Your task to perform on an android device: Go to notification settings Image 0: 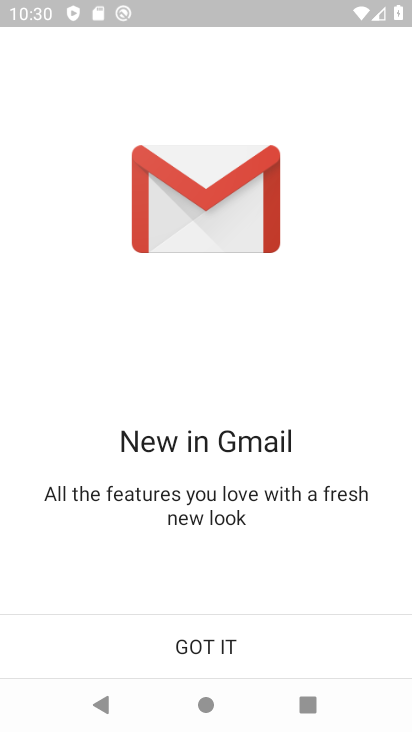
Step 0: press home button
Your task to perform on an android device: Go to notification settings Image 1: 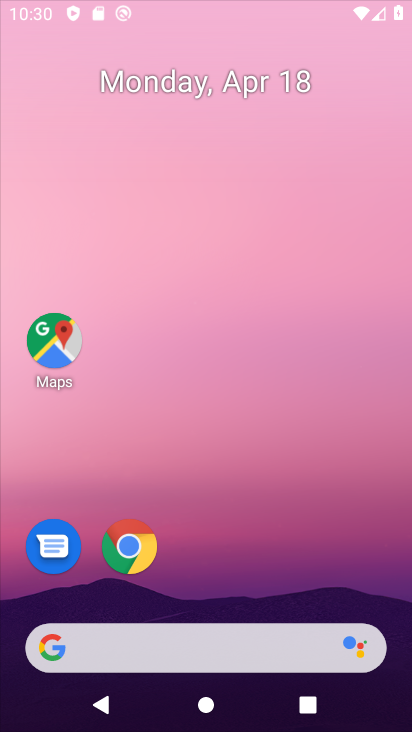
Step 1: press home button
Your task to perform on an android device: Go to notification settings Image 2: 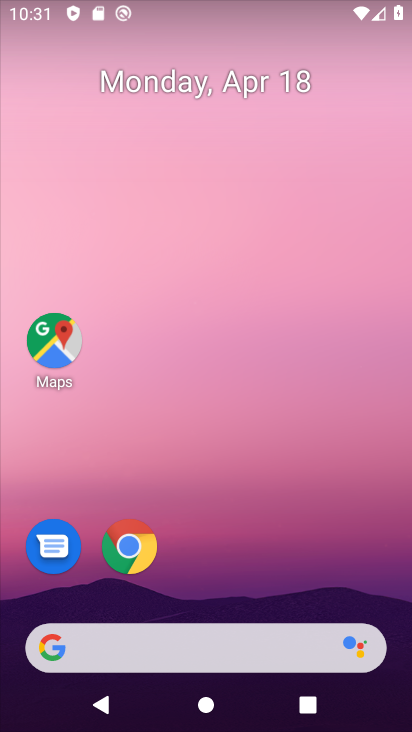
Step 2: drag from (256, 622) to (291, 127)
Your task to perform on an android device: Go to notification settings Image 3: 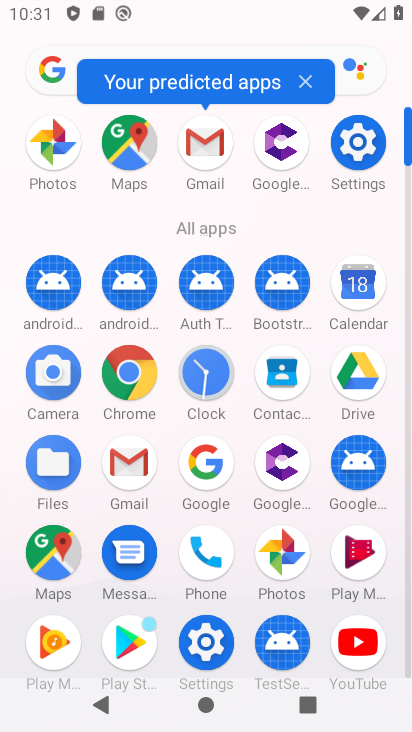
Step 3: click (344, 144)
Your task to perform on an android device: Go to notification settings Image 4: 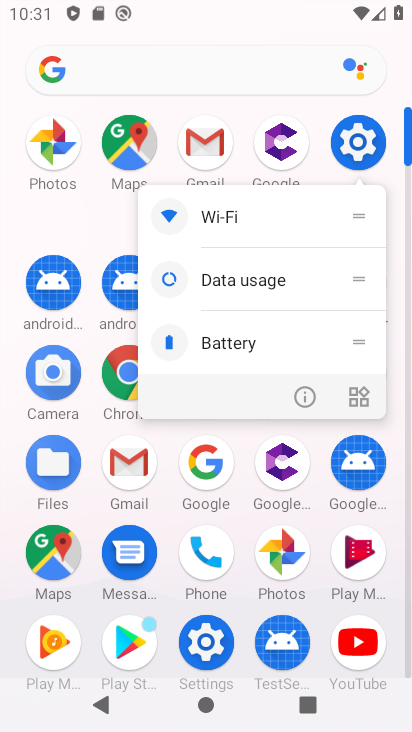
Step 4: click (398, 225)
Your task to perform on an android device: Go to notification settings Image 5: 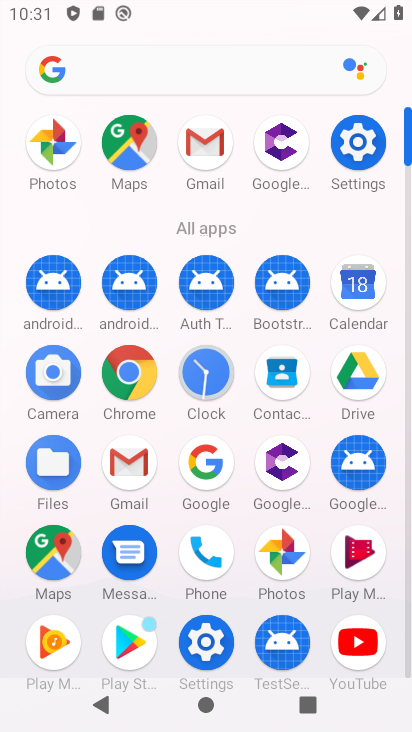
Step 5: click (398, 289)
Your task to perform on an android device: Go to notification settings Image 6: 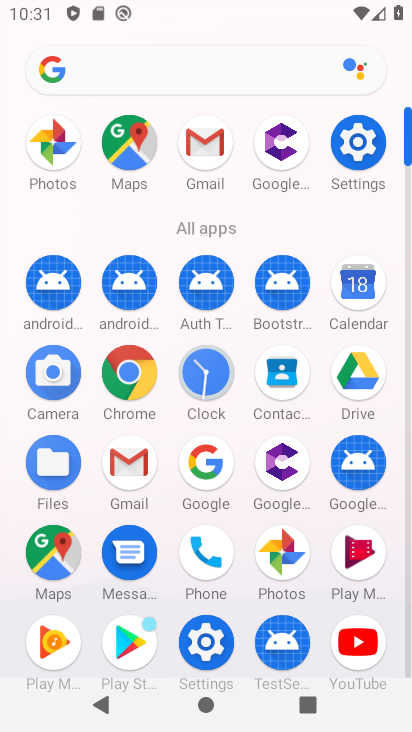
Step 6: click (371, 141)
Your task to perform on an android device: Go to notification settings Image 7: 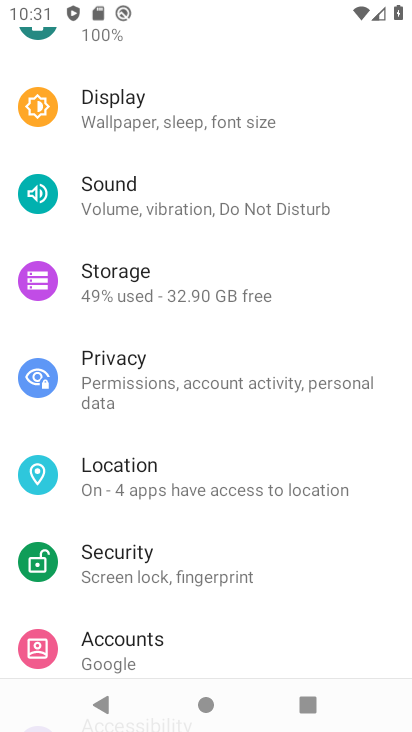
Step 7: drag from (197, 500) to (144, 134)
Your task to perform on an android device: Go to notification settings Image 8: 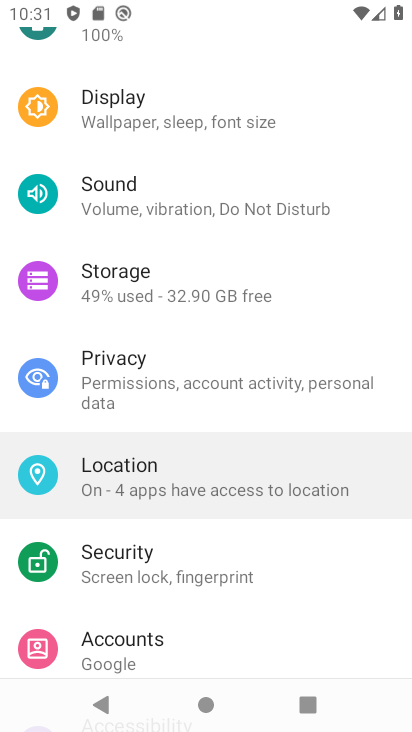
Step 8: drag from (173, 421) to (168, 192)
Your task to perform on an android device: Go to notification settings Image 9: 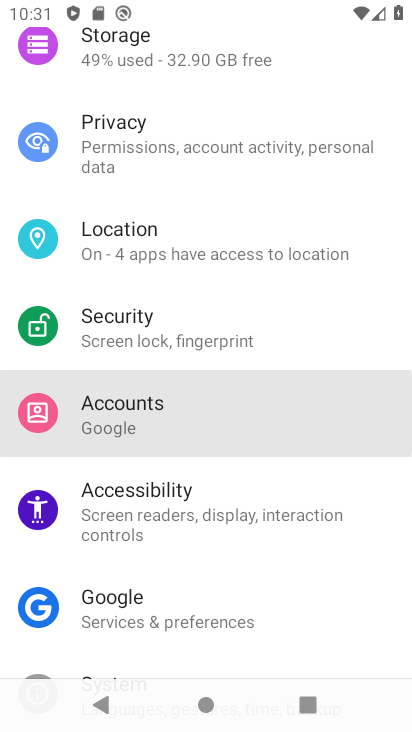
Step 9: drag from (165, 308) to (156, 236)
Your task to perform on an android device: Go to notification settings Image 10: 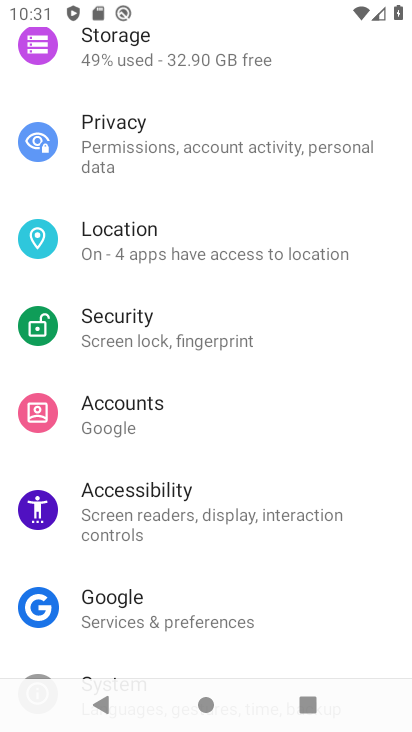
Step 10: drag from (164, 209) to (212, 547)
Your task to perform on an android device: Go to notification settings Image 11: 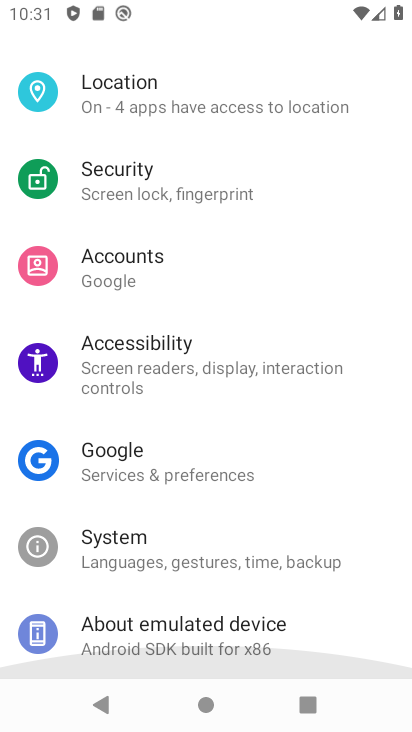
Step 11: click (267, 554)
Your task to perform on an android device: Go to notification settings Image 12: 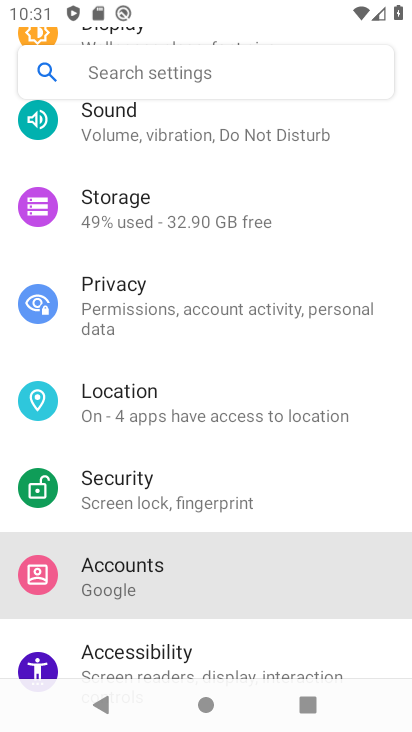
Step 12: drag from (202, 547) to (238, 616)
Your task to perform on an android device: Go to notification settings Image 13: 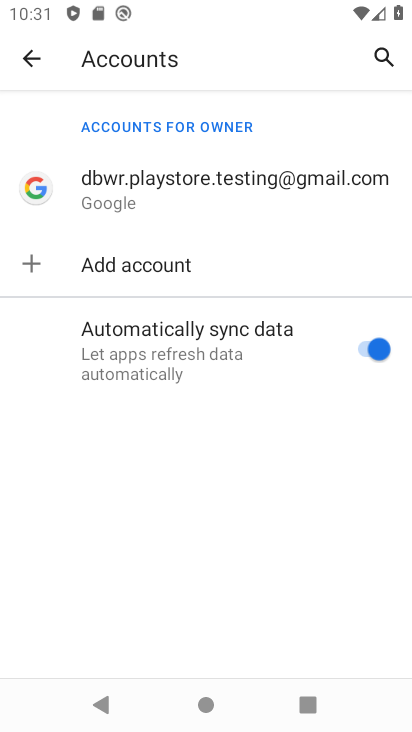
Step 13: drag from (204, 592) to (244, 593)
Your task to perform on an android device: Go to notification settings Image 14: 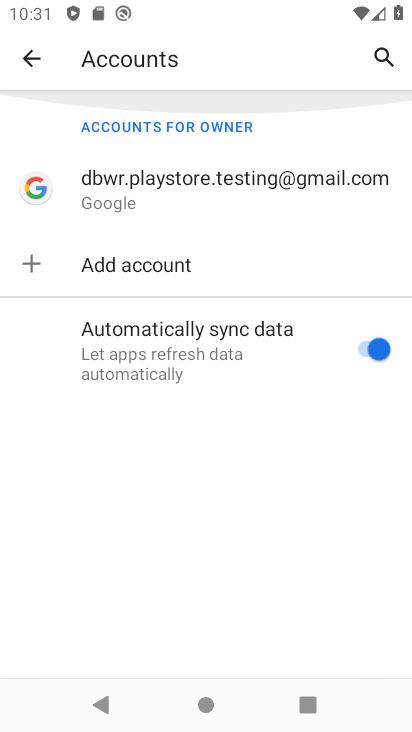
Step 14: click (34, 46)
Your task to perform on an android device: Go to notification settings Image 15: 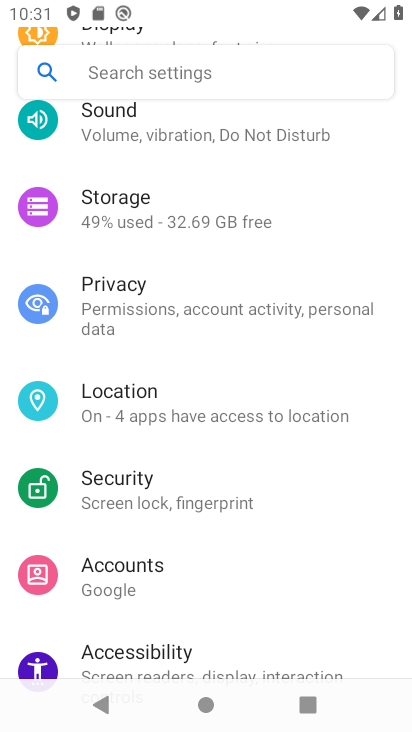
Step 15: drag from (191, 231) to (176, 559)
Your task to perform on an android device: Go to notification settings Image 16: 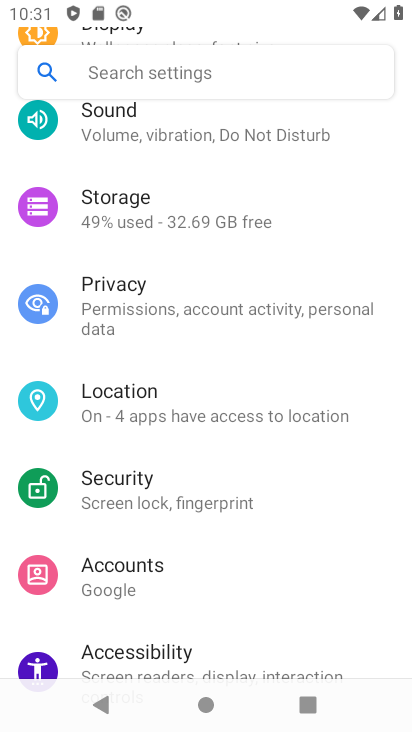
Step 16: click (238, 568)
Your task to perform on an android device: Go to notification settings Image 17: 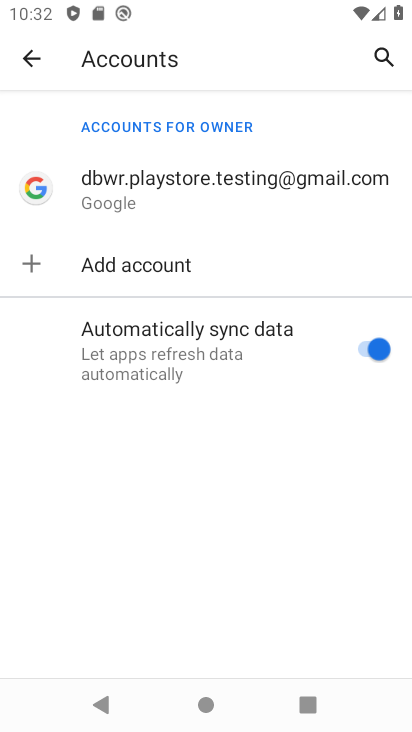
Step 17: click (22, 50)
Your task to perform on an android device: Go to notification settings Image 18: 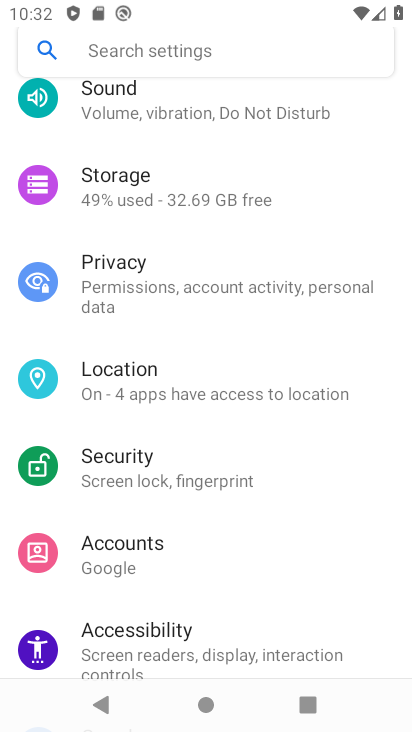
Step 18: drag from (197, 397) to (231, 599)
Your task to perform on an android device: Go to notification settings Image 19: 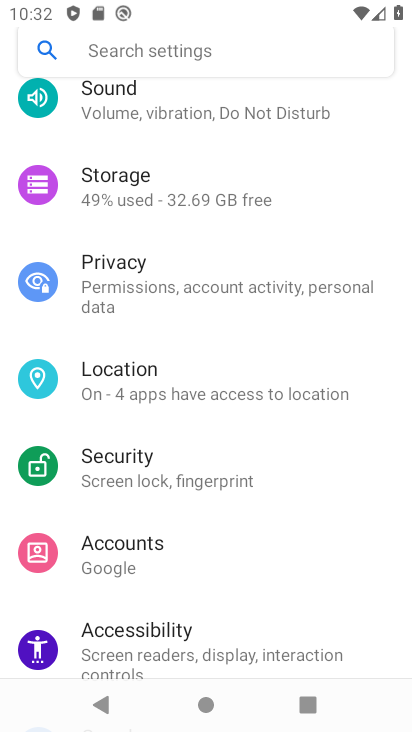
Step 19: drag from (128, 154) to (207, 469)
Your task to perform on an android device: Go to notification settings Image 20: 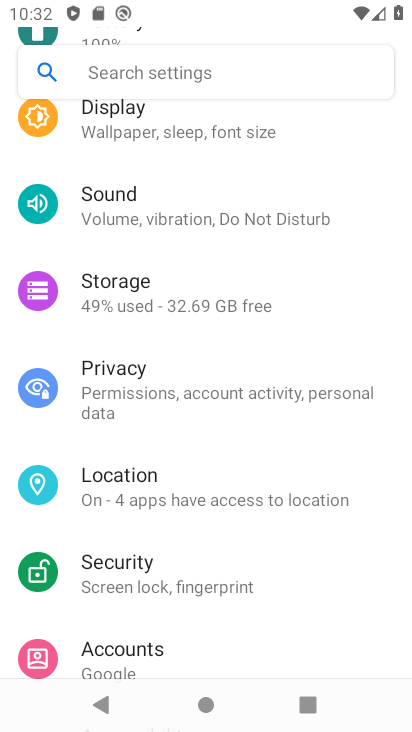
Step 20: drag from (160, 175) to (166, 514)
Your task to perform on an android device: Go to notification settings Image 21: 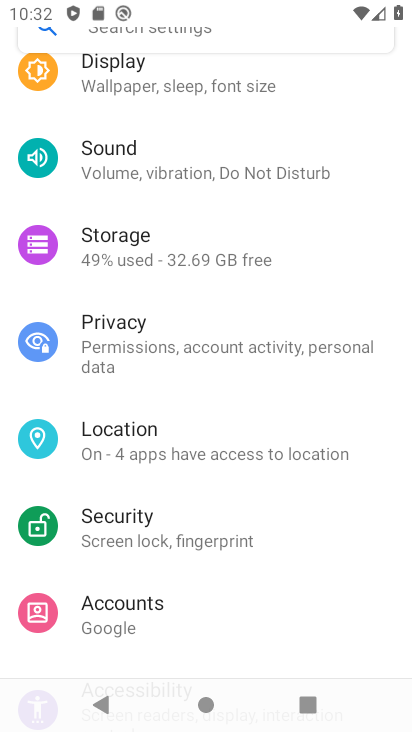
Step 21: drag from (235, 513) to (172, 530)
Your task to perform on an android device: Go to notification settings Image 22: 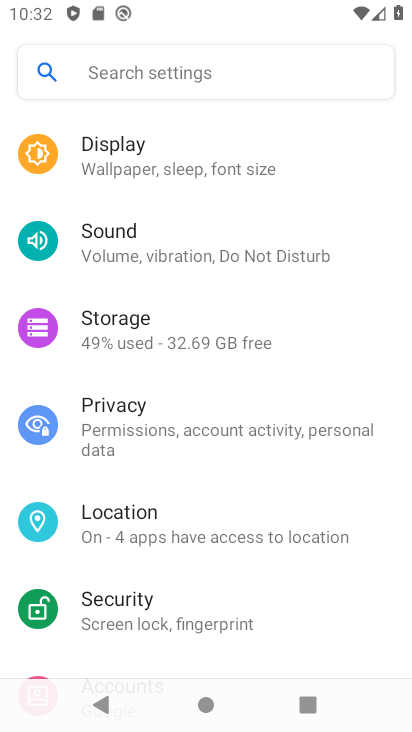
Step 22: drag from (176, 275) to (222, 535)
Your task to perform on an android device: Go to notification settings Image 23: 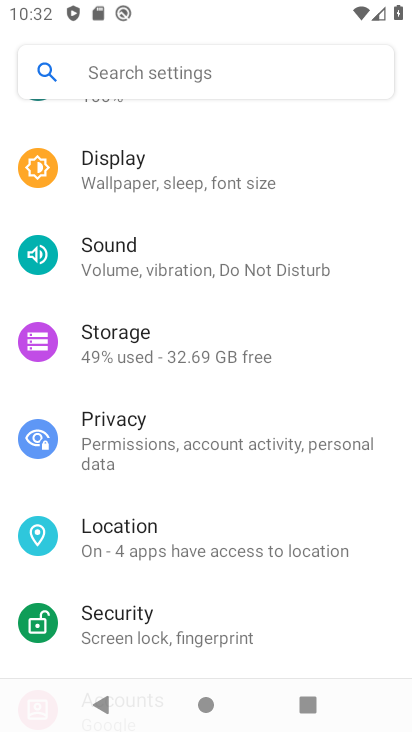
Step 23: drag from (254, 237) to (303, 723)
Your task to perform on an android device: Go to notification settings Image 24: 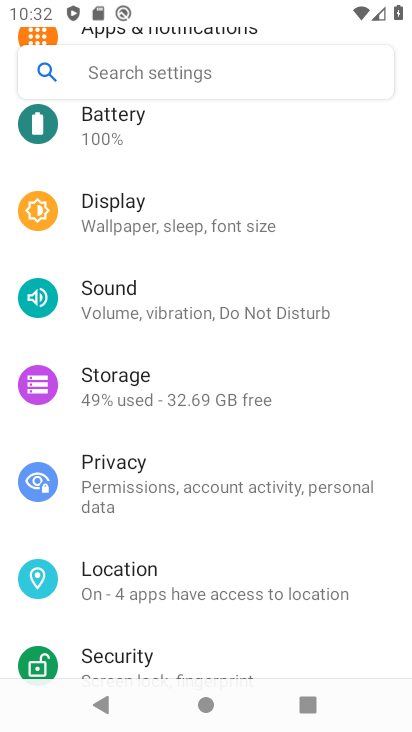
Step 24: drag from (268, 459) to (300, 680)
Your task to perform on an android device: Go to notification settings Image 25: 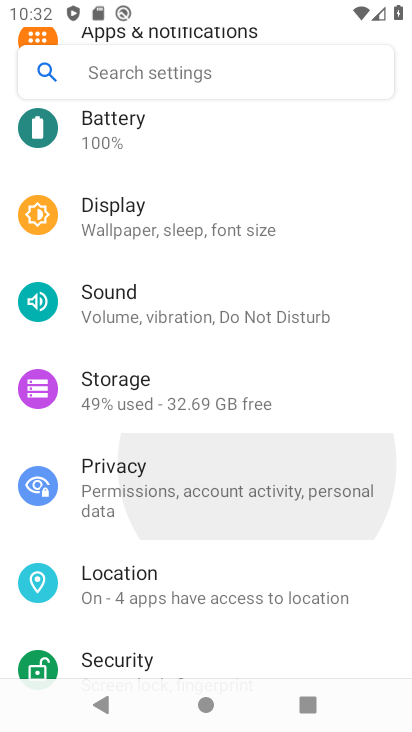
Step 25: drag from (248, 334) to (270, 661)
Your task to perform on an android device: Go to notification settings Image 26: 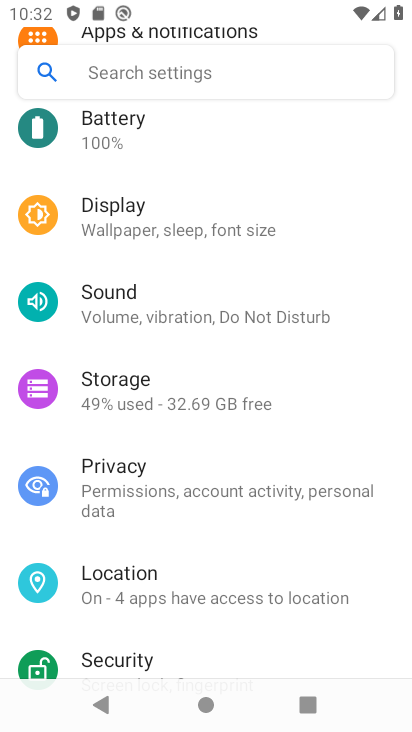
Step 26: click (192, 30)
Your task to perform on an android device: Go to notification settings Image 27: 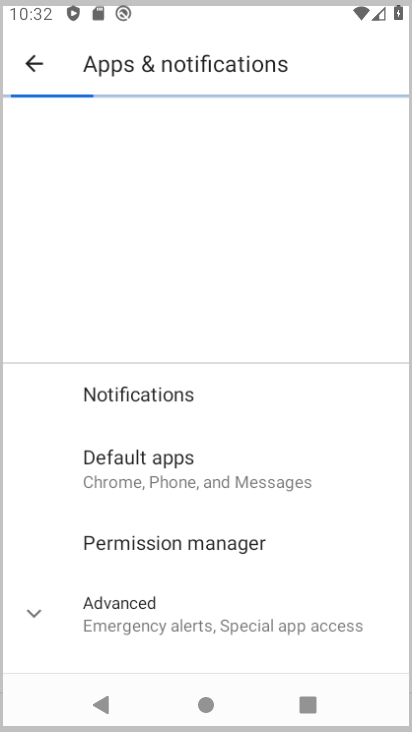
Step 27: click (192, 30)
Your task to perform on an android device: Go to notification settings Image 28: 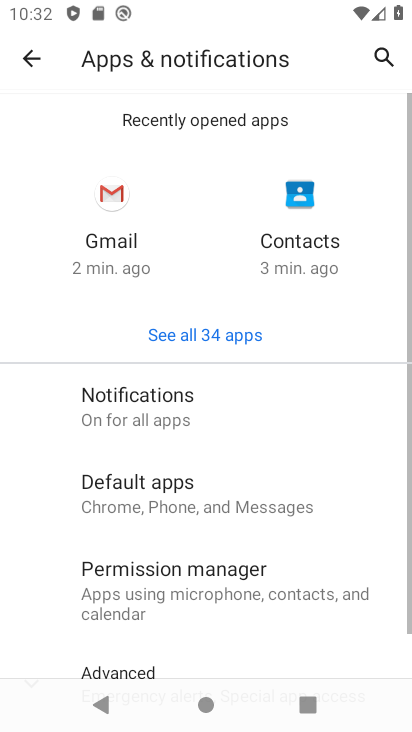
Step 28: drag from (233, 557) to (183, 202)
Your task to perform on an android device: Go to notification settings Image 29: 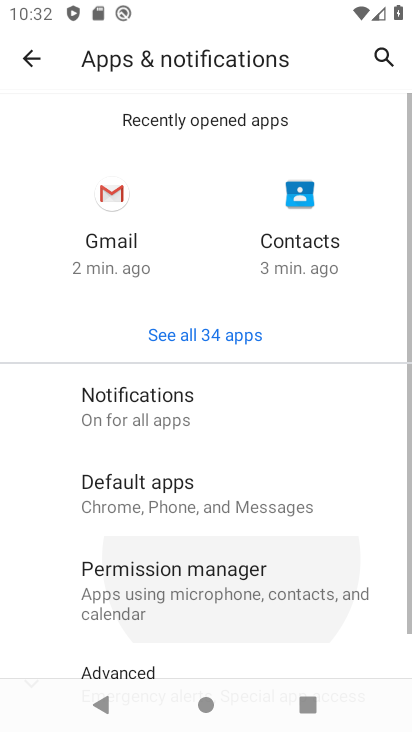
Step 29: drag from (180, 503) to (160, 278)
Your task to perform on an android device: Go to notification settings Image 30: 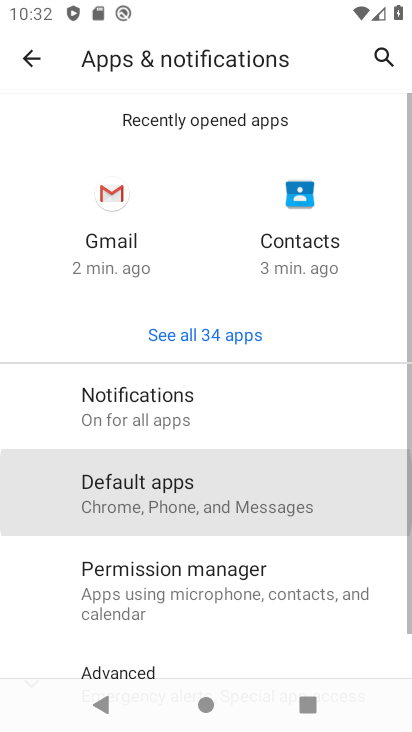
Step 30: drag from (192, 281) to (186, 225)
Your task to perform on an android device: Go to notification settings Image 31: 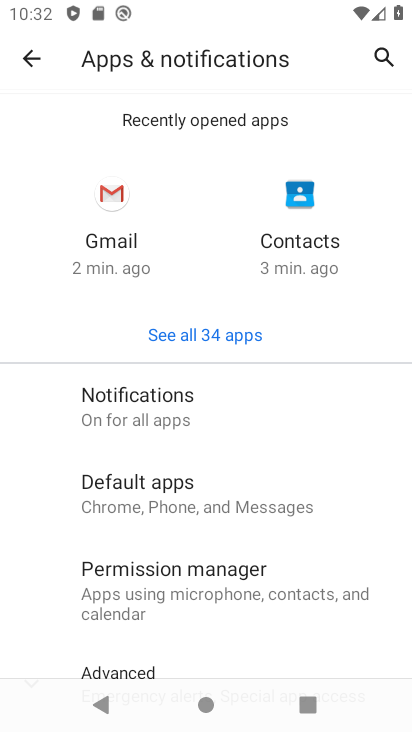
Step 31: drag from (272, 487) to (234, 147)
Your task to perform on an android device: Go to notification settings Image 32: 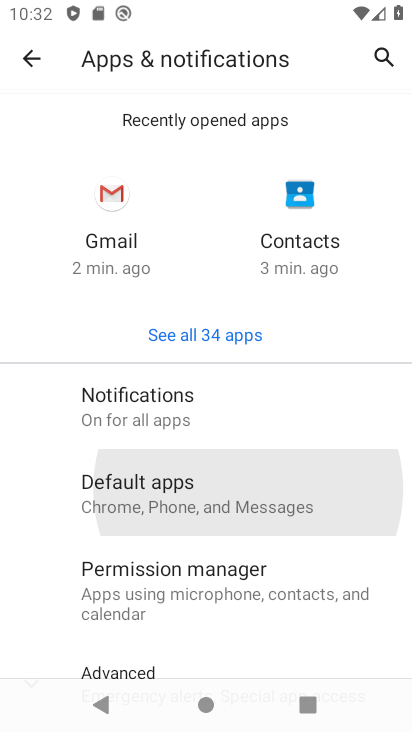
Step 32: drag from (93, 405) to (93, 176)
Your task to perform on an android device: Go to notification settings Image 33: 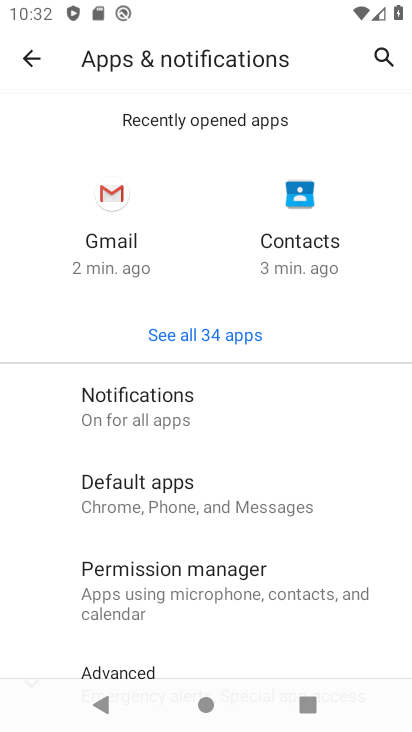
Step 33: click (128, 405)
Your task to perform on an android device: Go to notification settings Image 34: 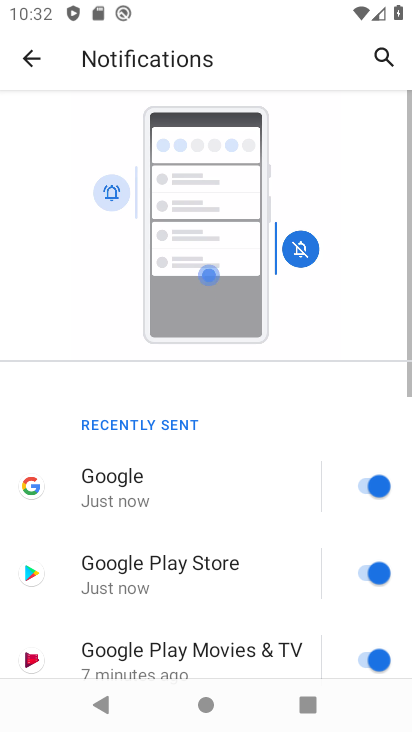
Step 34: click (131, 390)
Your task to perform on an android device: Go to notification settings Image 35: 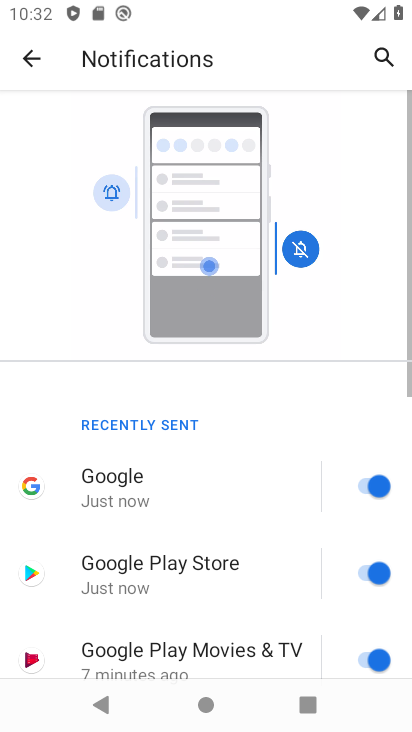
Step 35: click (131, 390)
Your task to perform on an android device: Go to notification settings Image 36: 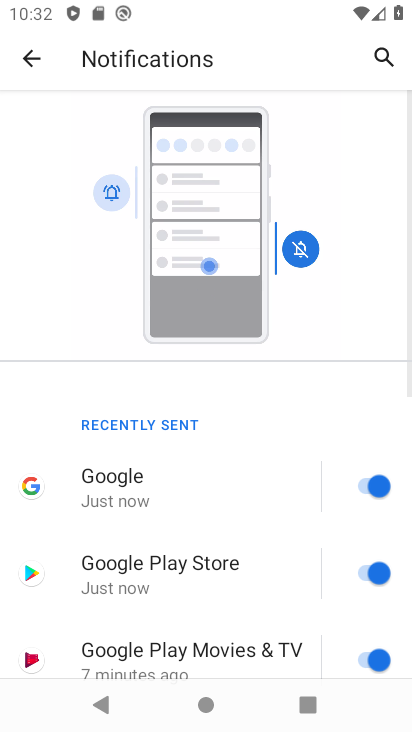
Step 36: task complete